Your task to perform on an android device: See recent photos Image 0: 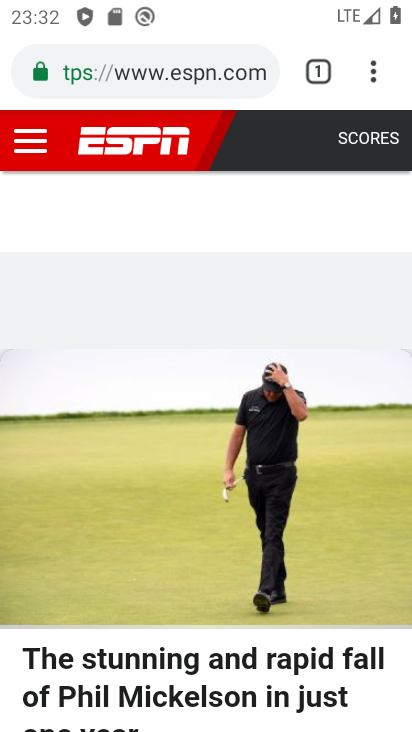
Step 0: press home button
Your task to perform on an android device: See recent photos Image 1: 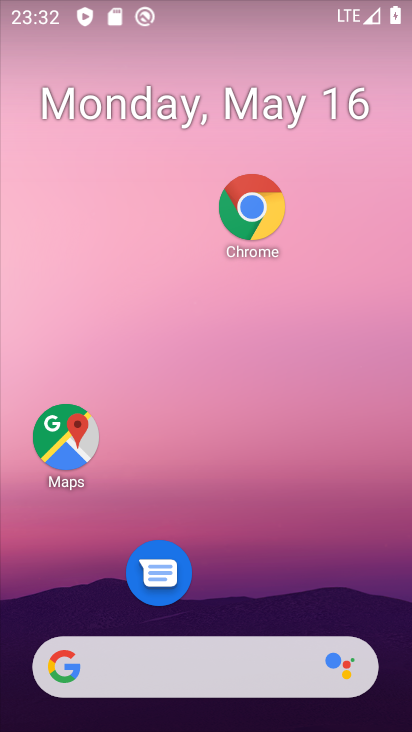
Step 1: drag from (149, 669) to (205, 3)
Your task to perform on an android device: See recent photos Image 2: 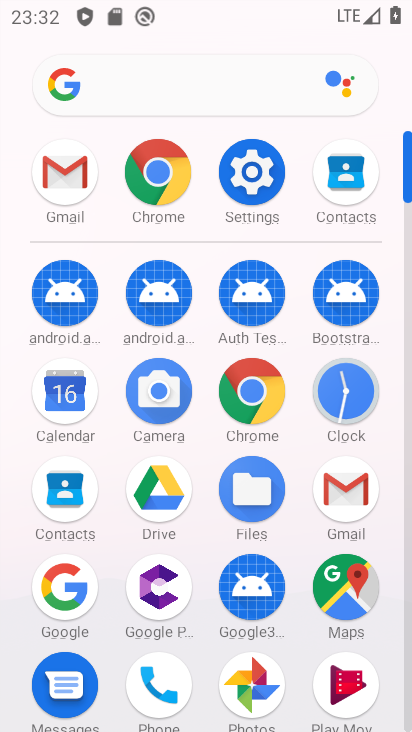
Step 2: click (242, 683)
Your task to perform on an android device: See recent photos Image 3: 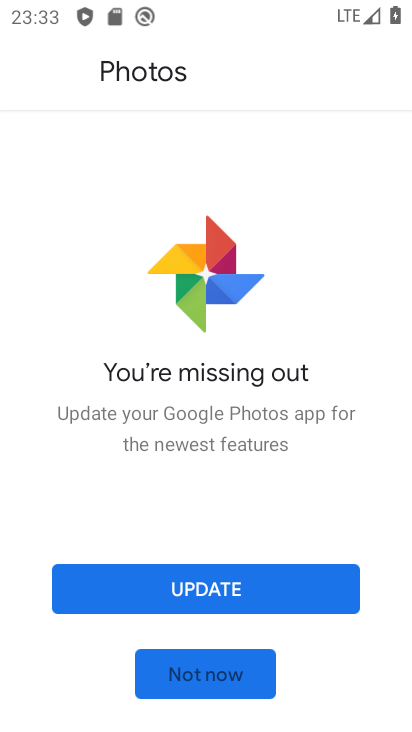
Step 3: drag from (223, 595) to (145, 595)
Your task to perform on an android device: See recent photos Image 4: 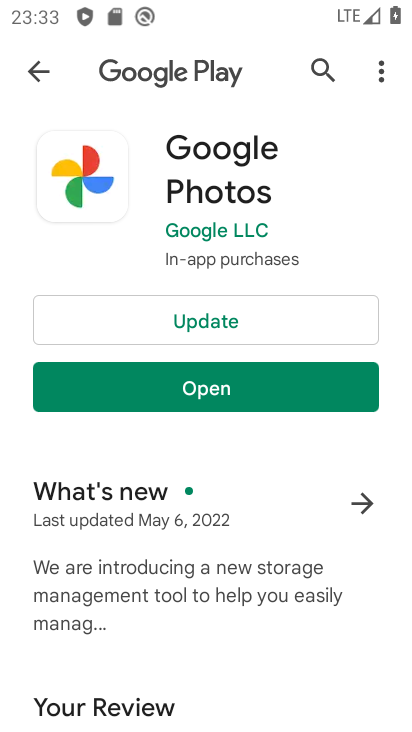
Step 4: click (271, 311)
Your task to perform on an android device: See recent photos Image 5: 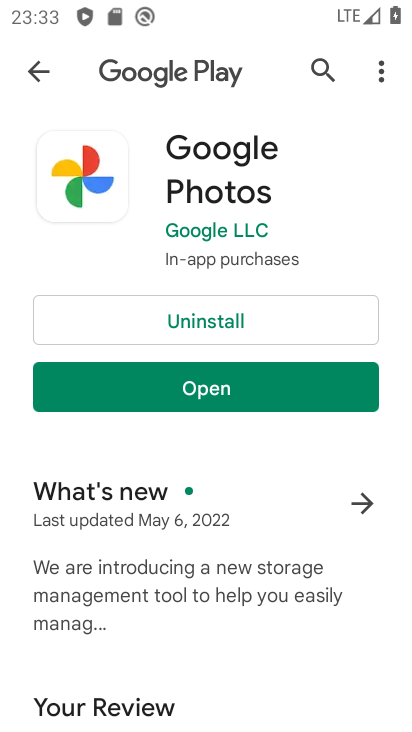
Step 5: click (234, 376)
Your task to perform on an android device: See recent photos Image 6: 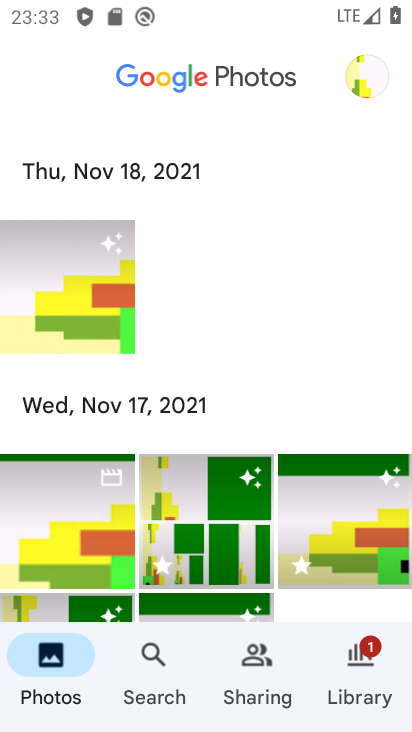
Step 6: task complete